Your task to perform on an android device: Open accessibility settings Image 0: 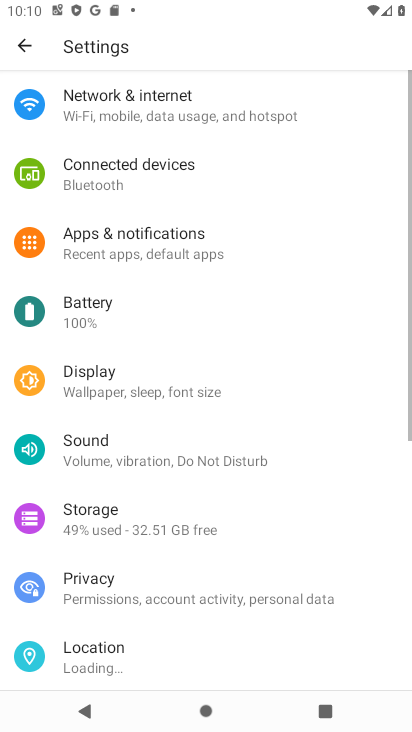
Step 0: drag from (174, 605) to (199, 224)
Your task to perform on an android device: Open accessibility settings Image 1: 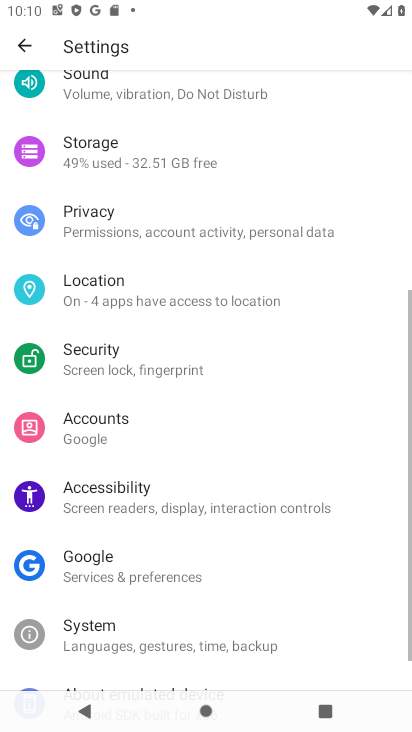
Step 1: click (162, 504)
Your task to perform on an android device: Open accessibility settings Image 2: 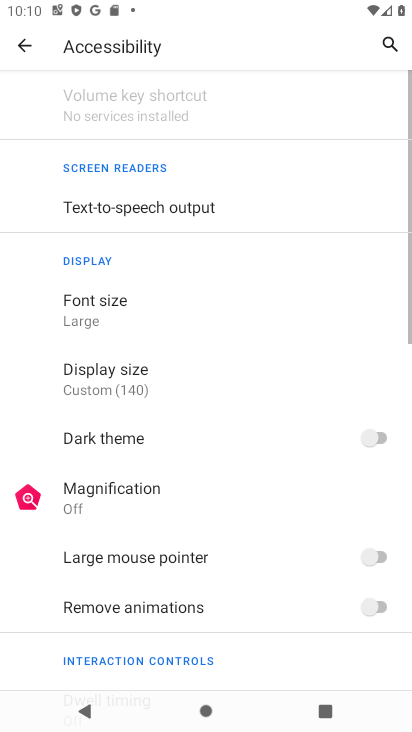
Step 2: task complete